Your task to perform on an android device: turn on notifications settings in the gmail app Image 0: 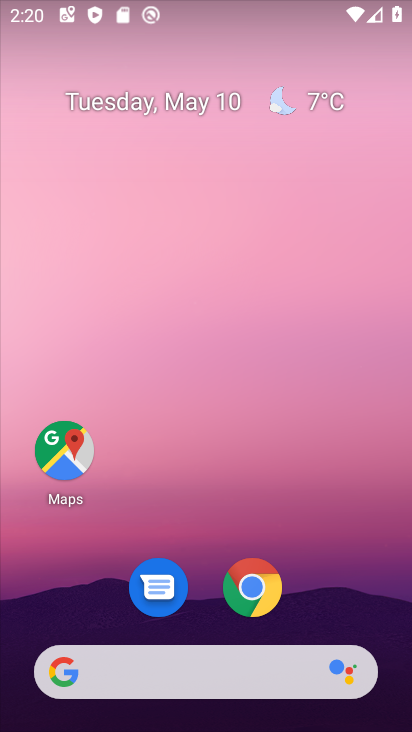
Step 0: drag from (338, 578) to (296, 129)
Your task to perform on an android device: turn on notifications settings in the gmail app Image 1: 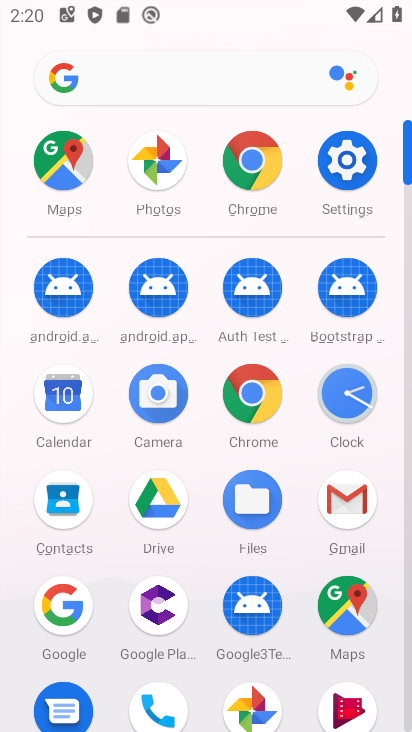
Step 1: click (354, 502)
Your task to perform on an android device: turn on notifications settings in the gmail app Image 2: 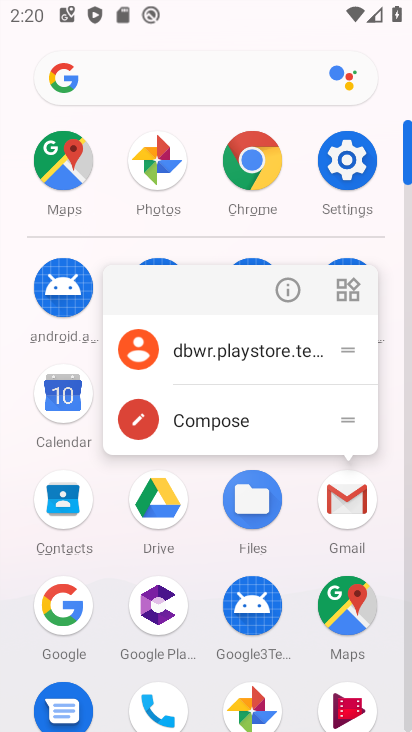
Step 2: click (295, 285)
Your task to perform on an android device: turn on notifications settings in the gmail app Image 3: 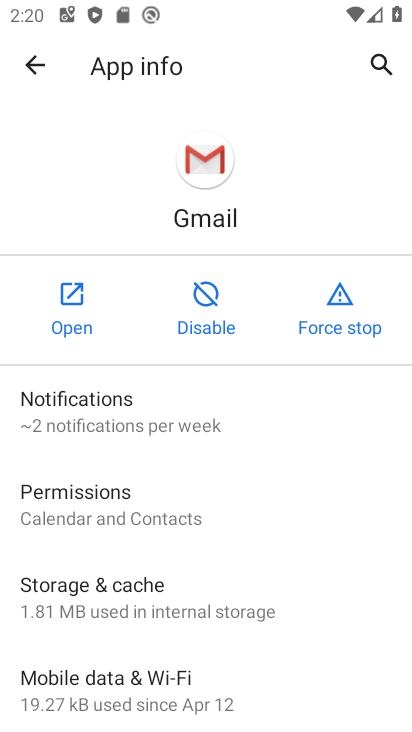
Step 3: click (177, 428)
Your task to perform on an android device: turn on notifications settings in the gmail app Image 4: 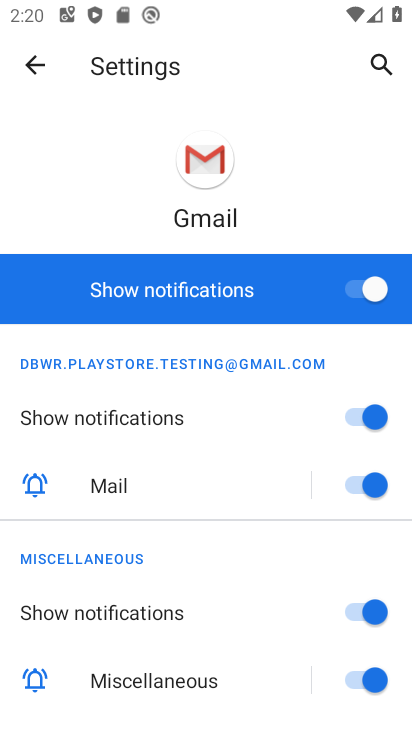
Step 4: task complete